Your task to perform on an android device: open the mobile data screen to see how much data has been used Image 0: 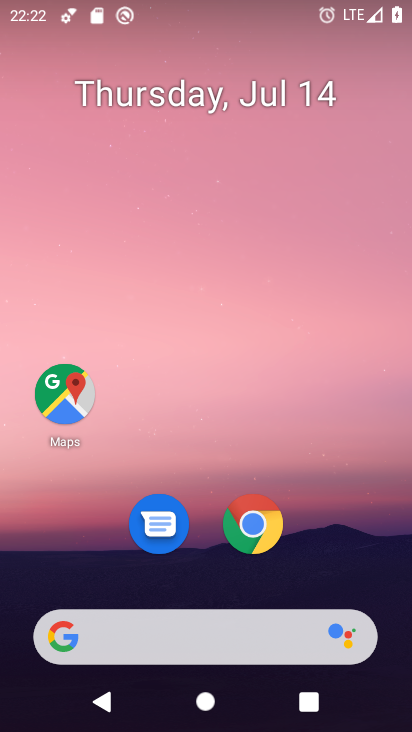
Step 0: drag from (229, 422) to (271, 21)
Your task to perform on an android device: open the mobile data screen to see how much data has been used Image 1: 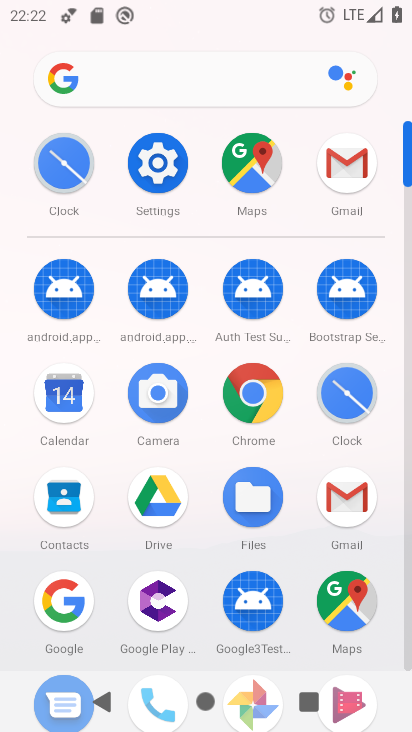
Step 1: click (167, 154)
Your task to perform on an android device: open the mobile data screen to see how much data has been used Image 2: 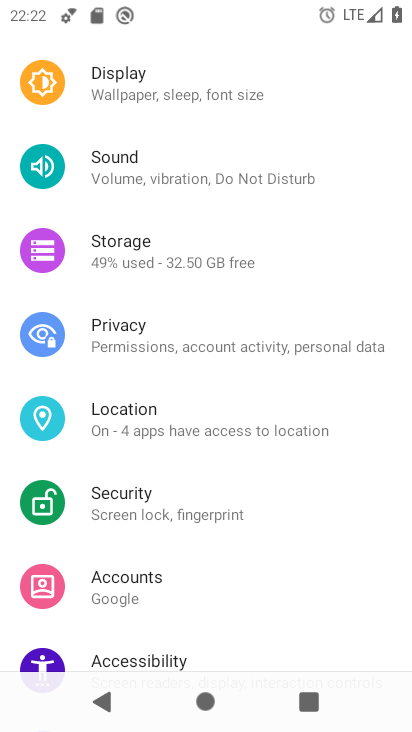
Step 2: drag from (202, 136) to (229, 577)
Your task to perform on an android device: open the mobile data screen to see how much data has been used Image 3: 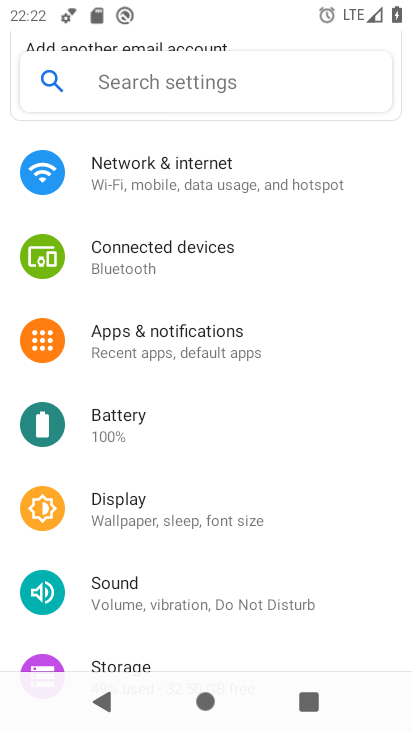
Step 3: click (227, 180)
Your task to perform on an android device: open the mobile data screen to see how much data has been used Image 4: 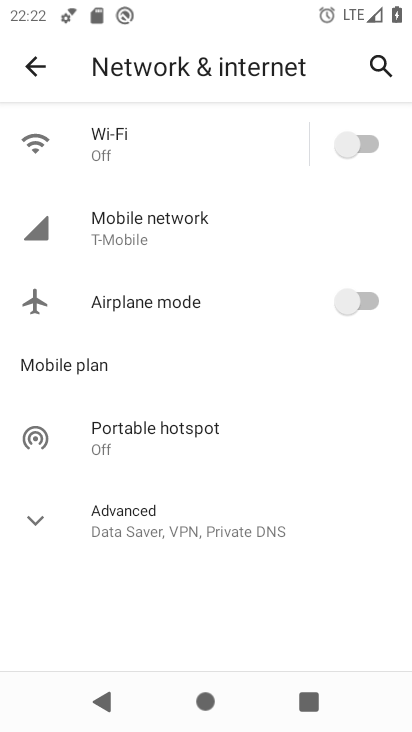
Step 4: click (173, 213)
Your task to perform on an android device: open the mobile data screen to see how much data has been used Image 5: 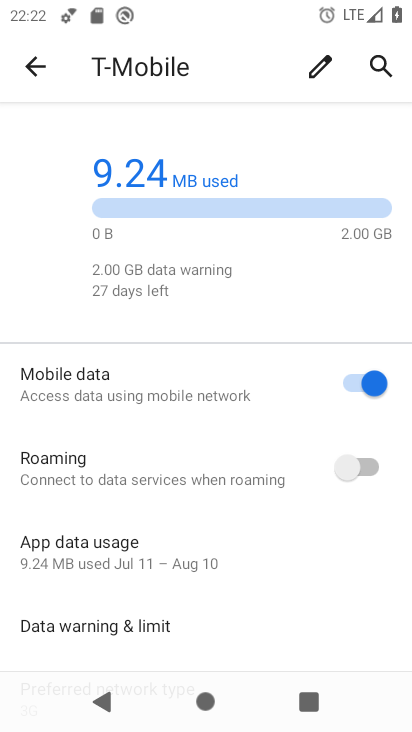
Step 5: task complete